Your task to perform on an android device: Go to privacy settings Image 0: 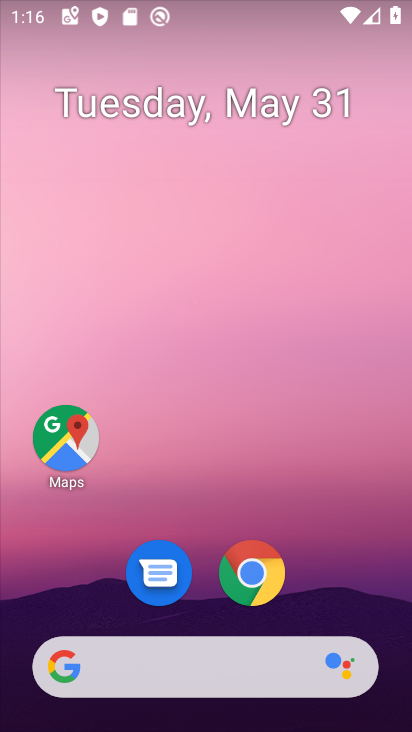
Step 0: drag from (382, 576) to (384, 81)
Your task to perform on an android device: Go to privacy settings Image 1: 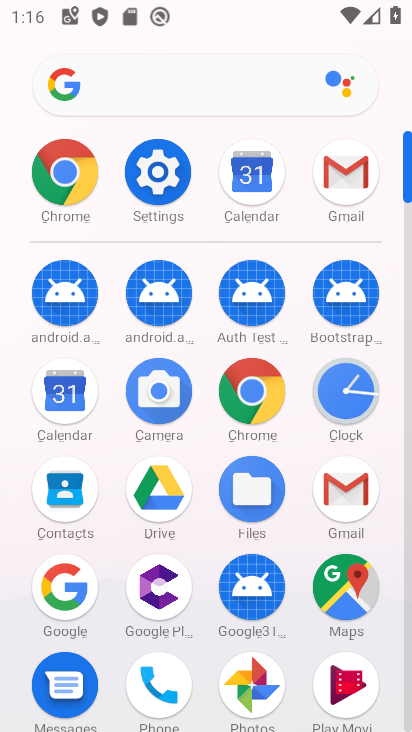
Step 1: click (162, 162)
Your task to perform on an android device: Go to privacy settings Image 2: 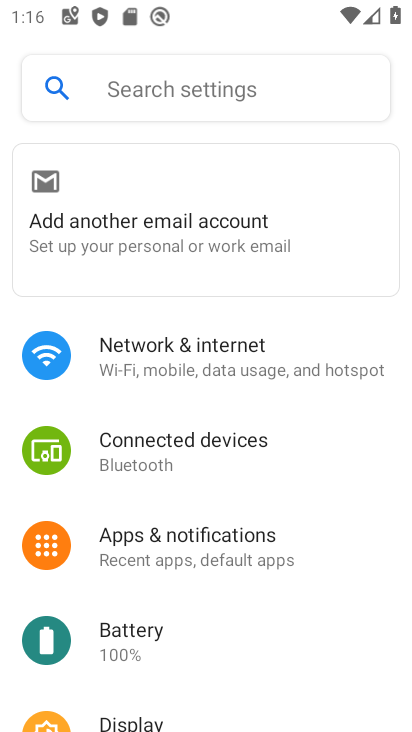
Step 2: drag from (342, 498) to (347, 423)
Your task to perform on an android device: Go to privacy settings Image 3: 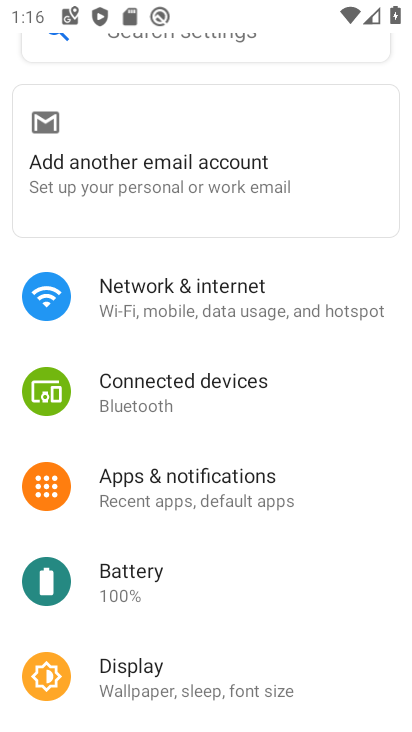
Step 3: drag from (342, 563) to (363, 439)
Your task to perform on an android device: Go to privacy settings Image 4: 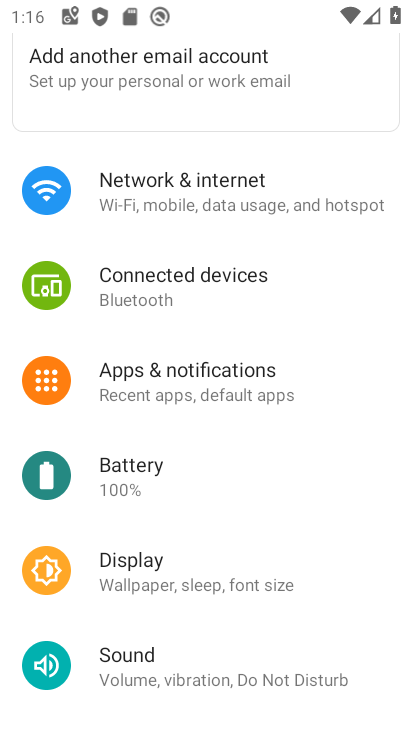
Step 4: drag from (352, 597) to (360, 353)
Your task to perform on an android device: Go to privacy settings Image 5: 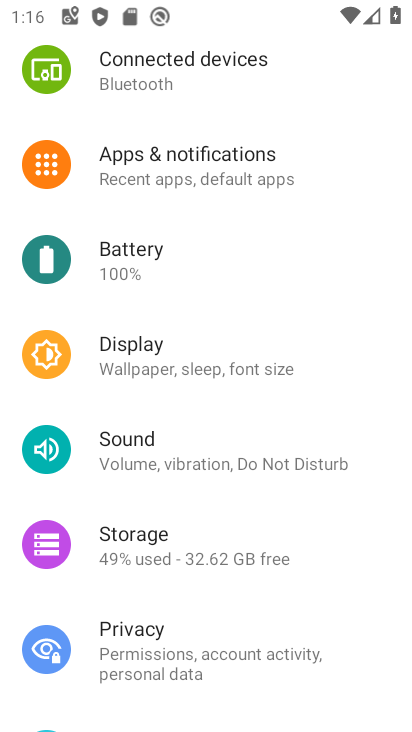
Step 5: drag from (364, 568) to (366, 410)
Your task to perform on an android device: Go to privacy settings Image 6: 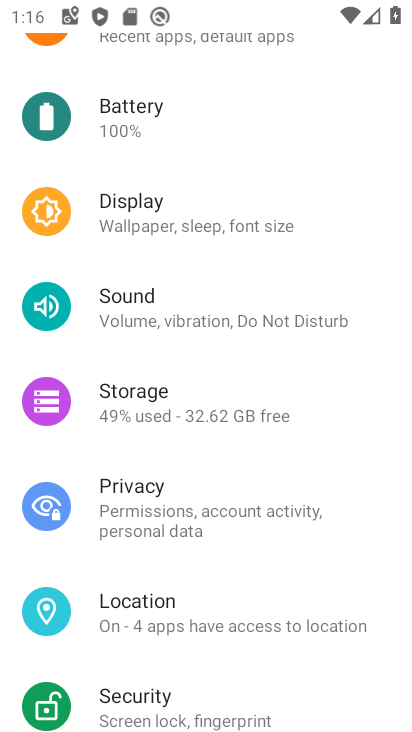
Step 6: drag from (339, 668) to (354, 476)
Your task to perform on an android device: Go to privacy settings Image 7: 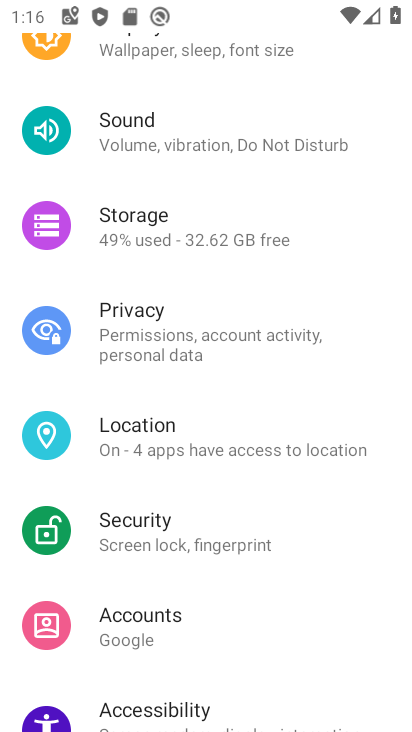
Step 7: drag from (343, 640) to (353, 472)
Your task to perform on an android device: Go to privacy settings Image 8: 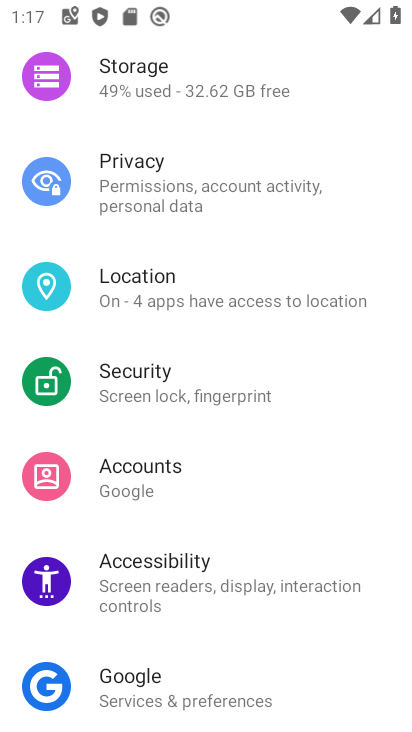
Step 8: drag from (320, 644) to (318, 491)
Your task to perform on an android device: Go to privacy settings Image 9: 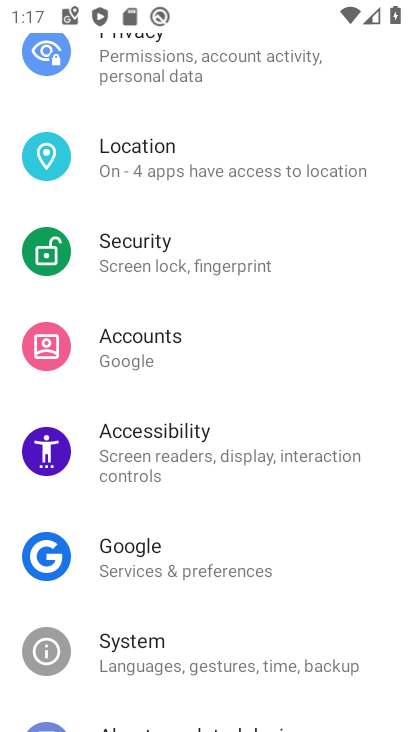
Step 9: drag from (331, 586) to (328, 471)
Your task to perform on an android device: Go to privacy settings Image 10: 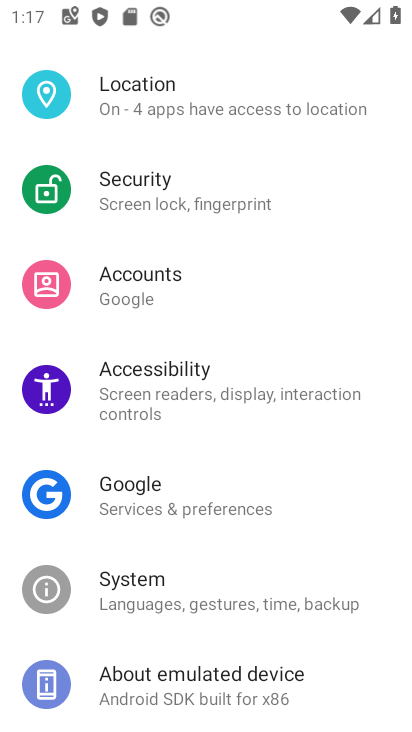
Step 10: drag from (309, 318) to (307, 436)
Your task to perform on an android device: Go to privacy settings Image 11: 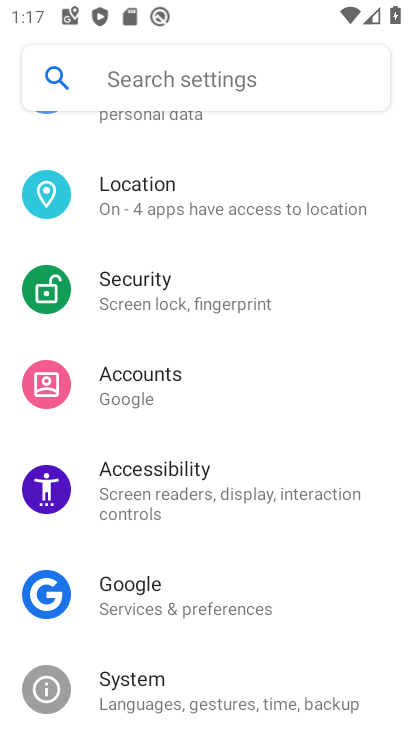
Step 11: drag from (309, 261) to (308, 350)
Your task to perform on an android device: Go to privacy settings Image 12: 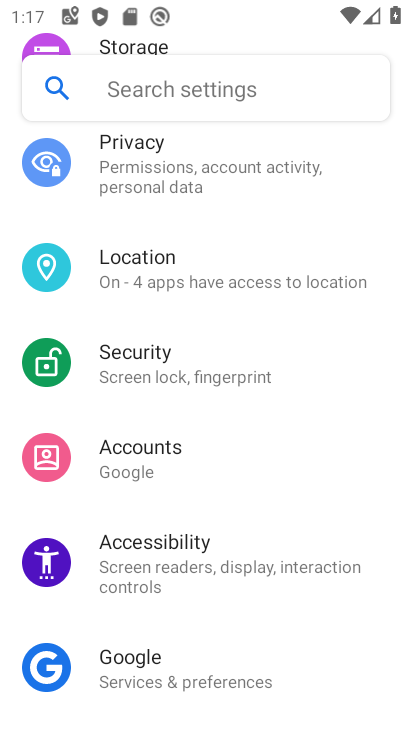
Step 12: drag from (316, 211) to (312, 336)
Your task to perform on an android device: Go to privacy settings Image 13: 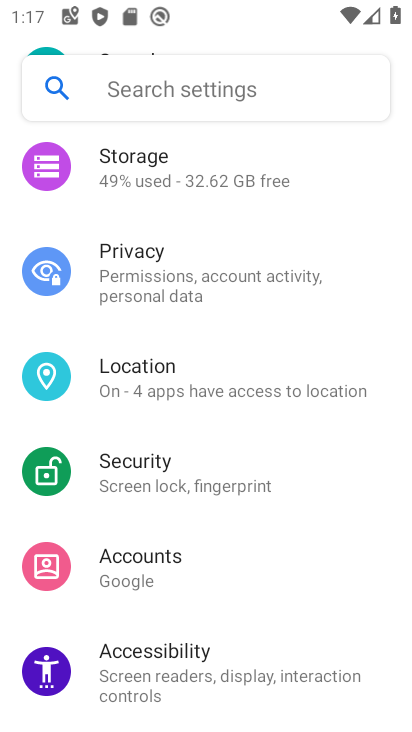
Step 13: click (228, 253)
Your task to perform on an android device: Go to privacy settings Image 14: 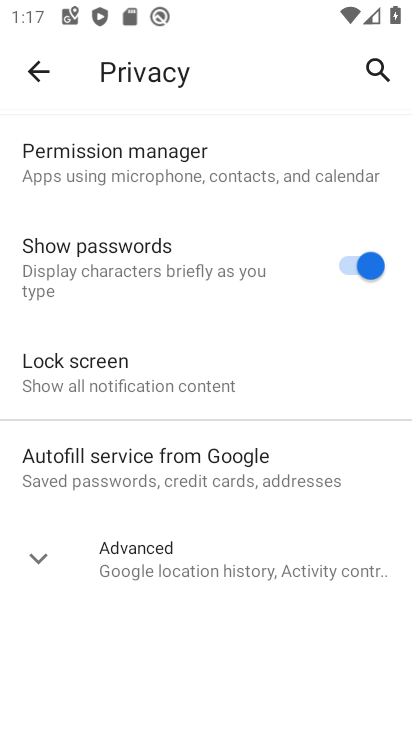
Step 14: task complete